Your task to perform on an android device: turn on translation in the chrome app Image 0: 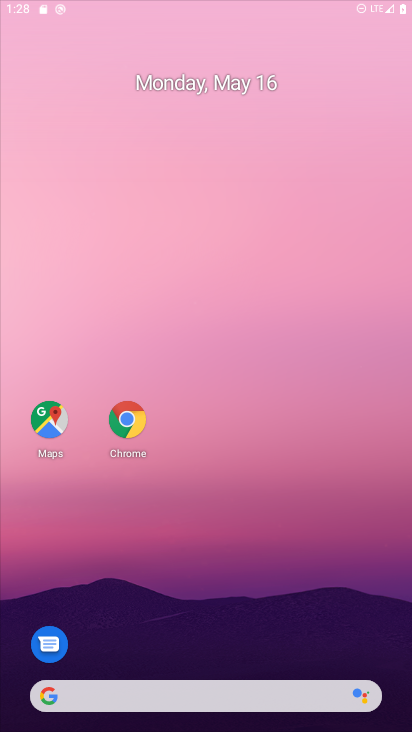
Step 0: click (297, 147)
Your task to perform on an android device: turn on translation in the chrome app Image 1: 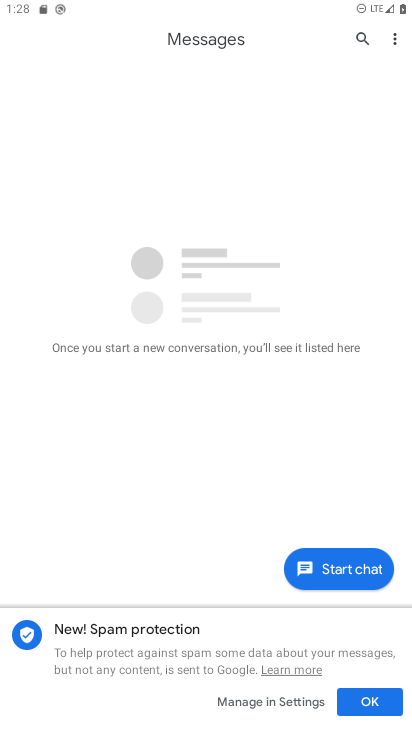
Step 1: press home button
Your task to perform on an android device: turn on translation in the chrome app Image 2: 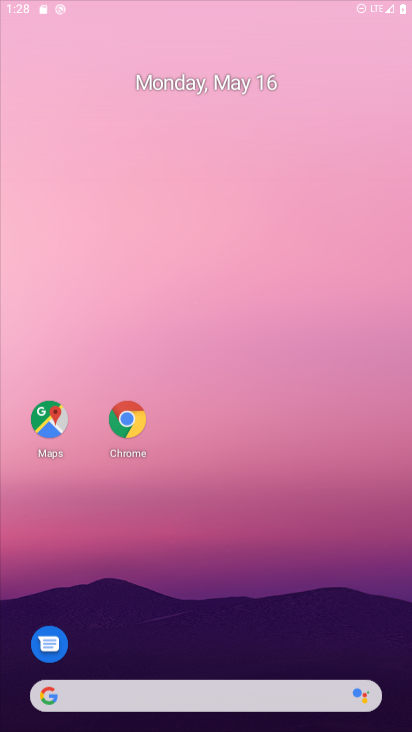
Step 2: drag from (134, 508) to (177, 2)
Your task to perform on an android device: turn on translation in the chrome app Image 3: 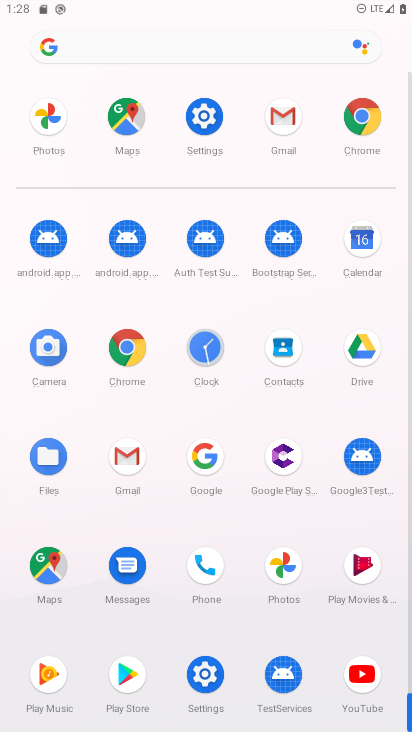
Step 3: click (124, 336)
Your task to perform on an android device: turn on translation in the chrome app Image 4: 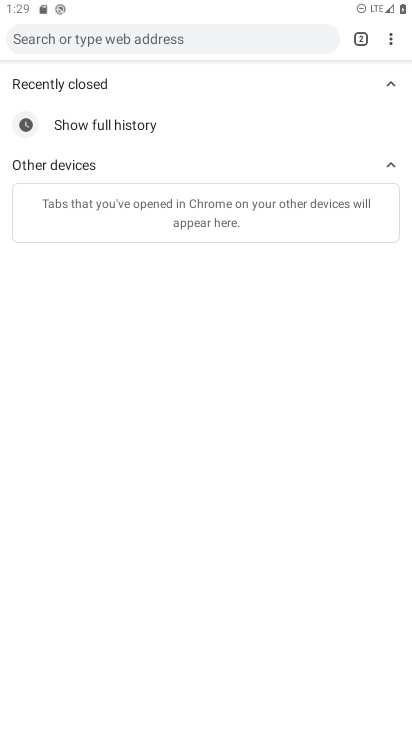
Step 4: drag from (138, 438) to (263, 102)
Your task to perform on an android device: turn on translation in the chrome app Image 5: 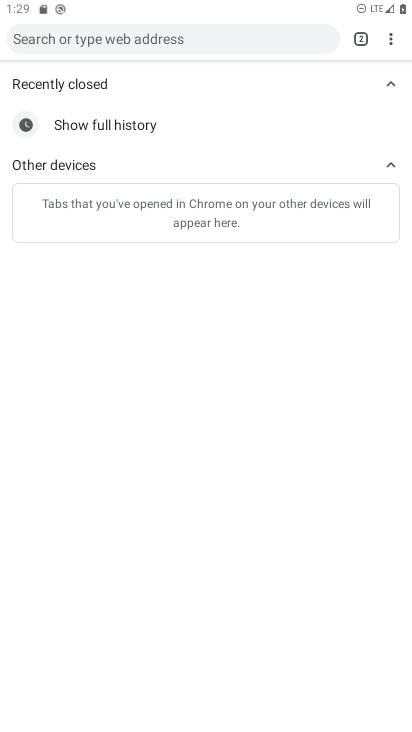
Step 5: click (386, 45)
Your task to perform on an android device: turn on translation in the chrome app Image 6: 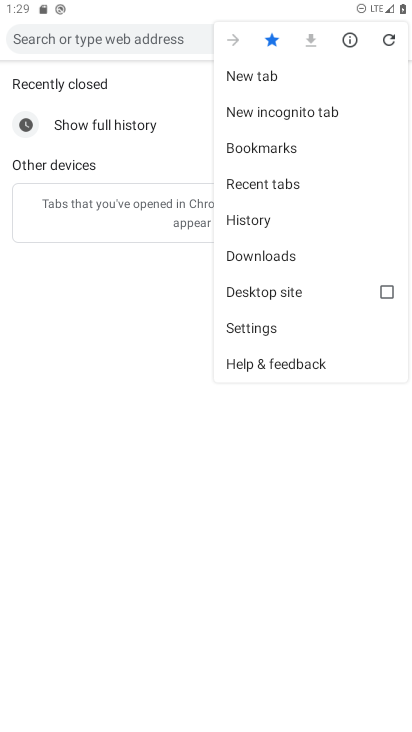
Step 6: click (266, 326)
Your task to perform on an android device: turn on translation in the chrome app Image 7: 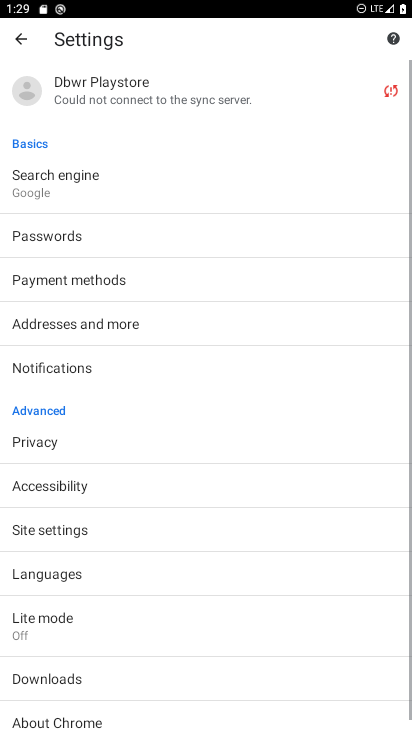
Step 7: drag from (180, 498) to (182, 17)
Your task to perform on an android device: turn on translation in the chrome app Image 8: 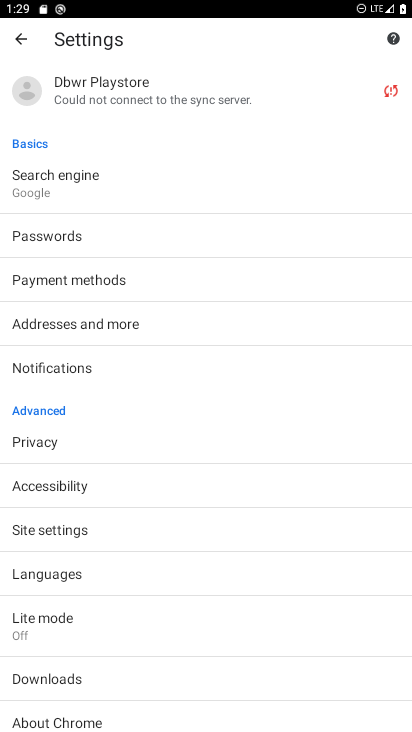
Step 8: click (65, 567)
Your task to perform on an android device: turn on translation in the chrome app Image 9: 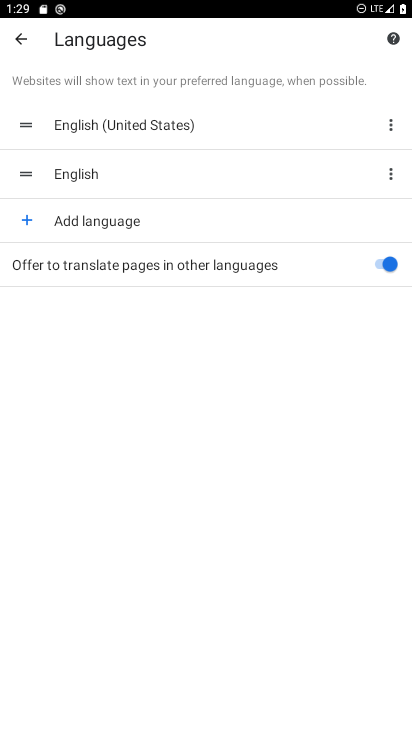
Step 9: task complete